Your task to perform on an android device: Go to Yahoo.com Image 0: 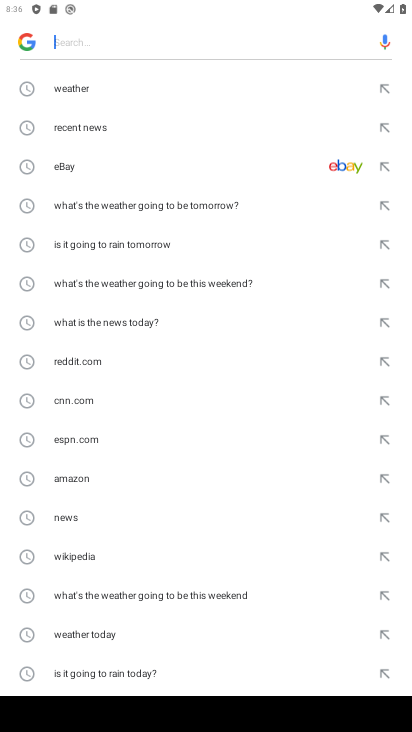
Step 0: press home button
Your task to perform on an android device: Go to Yahoo.com Image 1: 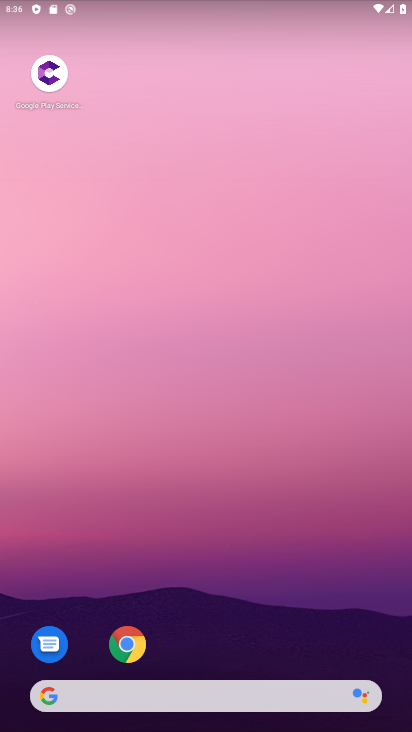
Step 1: click (131, 643)
Your task to perform on an android device: Go to Yahoo.com Image 2: 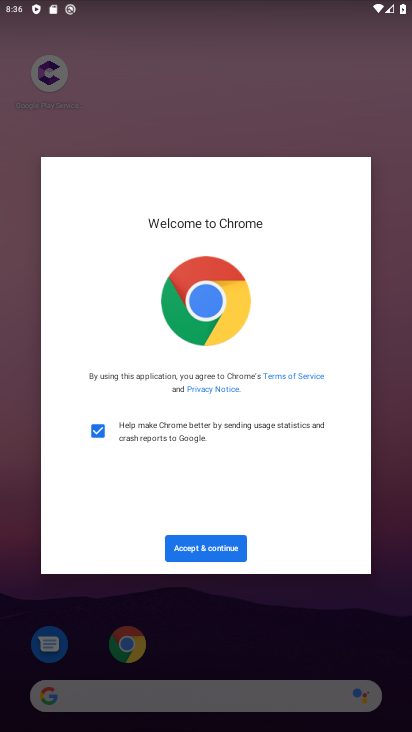
Step 2: click (181, 551)
Your task to perform on an android device: Go to Yahoo.com Image 3: 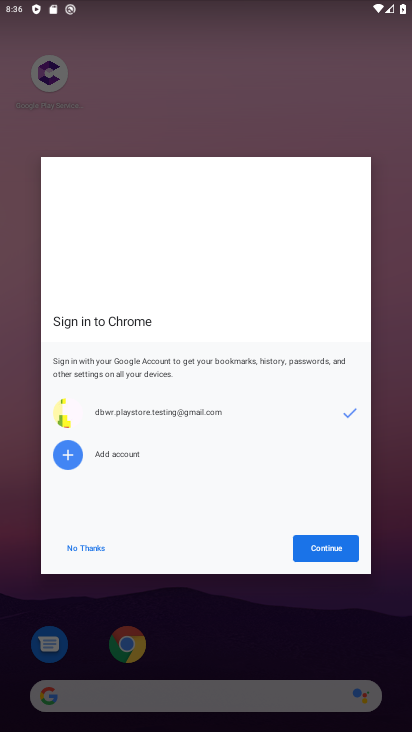
Step 3: click (313, 551)
Your task to perform on an android device: Go to Yahoo.com Image 4: 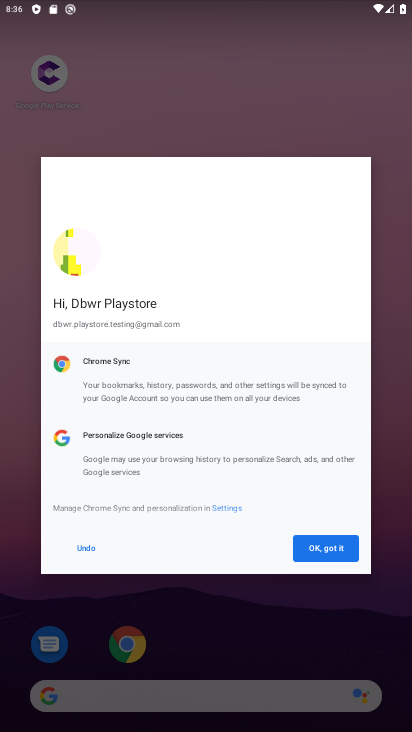
Step 4: click (313, 550)
Your task to perform on an android device: Go to Yahoo.com Image 5: 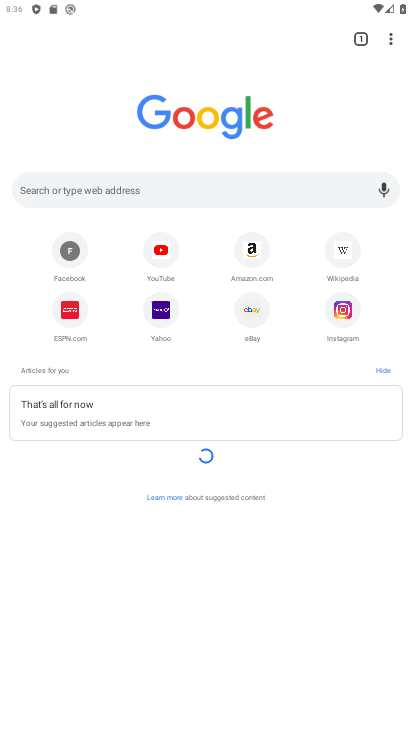
Step 5: click (166, 313)
Your task to perform on an android device: Go to Yahoo.com Image 6: 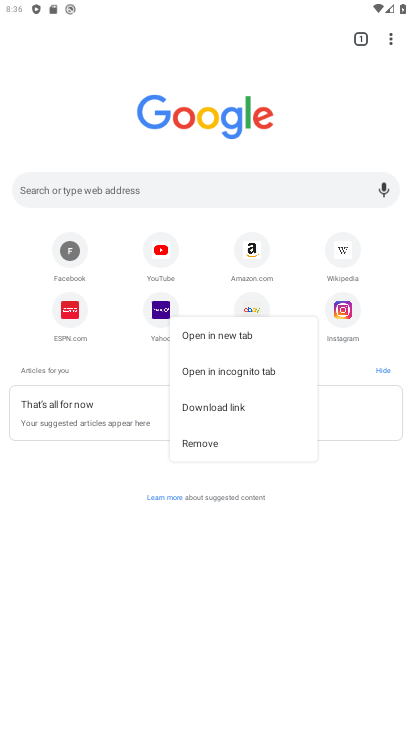
Step 6: click (177, 519)
Your task to perform on an android device: Go to Yahoo.com Image 7: 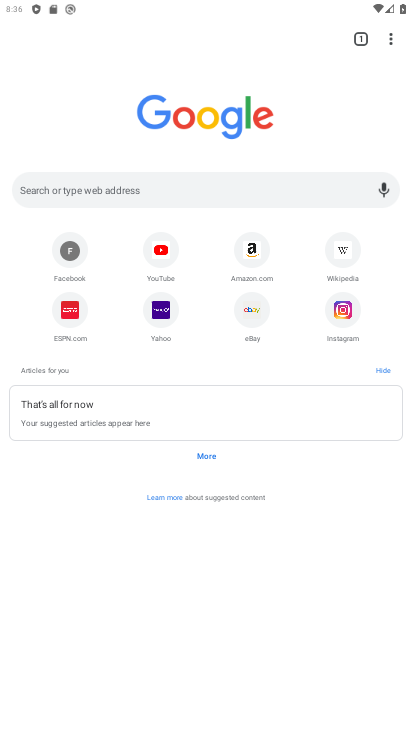
Step 7: click (158, 311)
Your task to perform on an android device: Go to Yahoo.com Image 8: 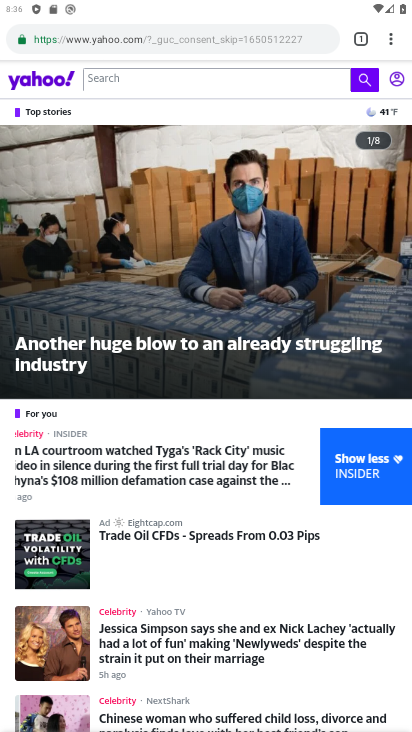
Step 8: task complete